Your task to perform on an android device: Open the web browser Image 0: 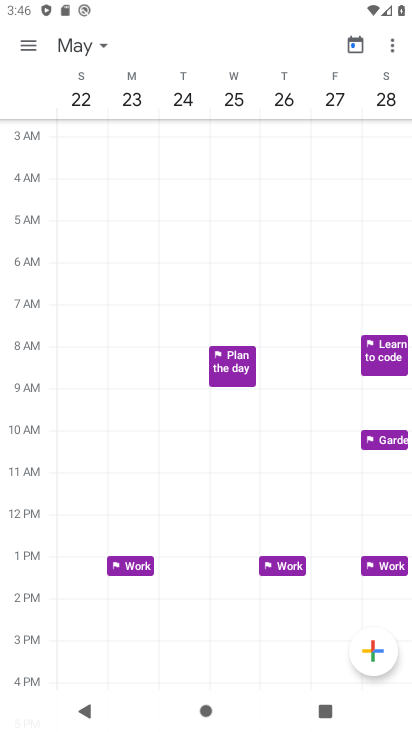
Step 0: press home button
Your task to perform on an android device: Open the web browser Image 1: 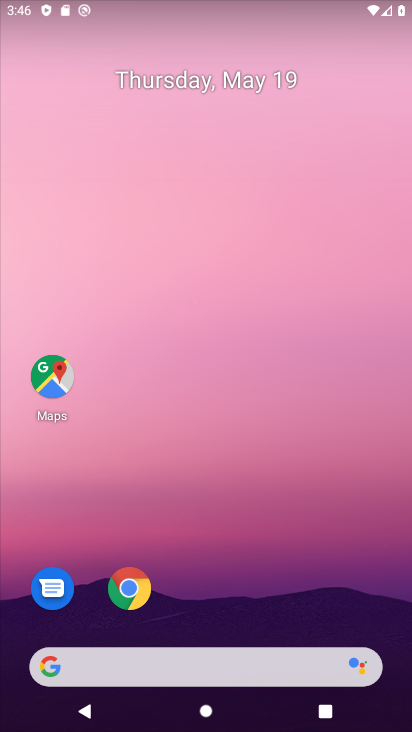
Step 1: click (130, 583)
Your task to perform on an android device: Open the web browser Image 2: 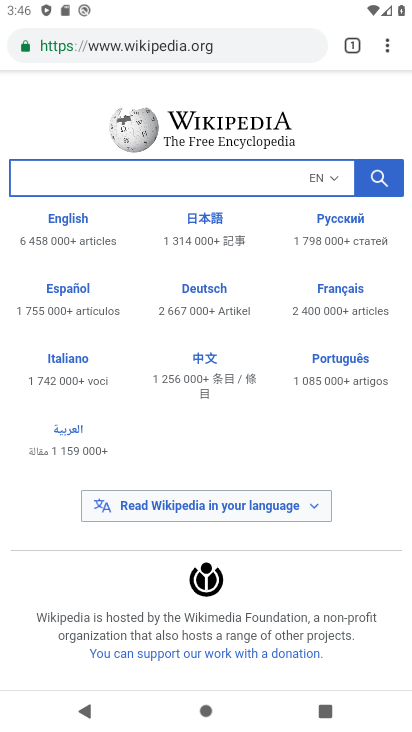
Step 2: task complete